Your task to perform on an android device: change notifications settings Image 0: 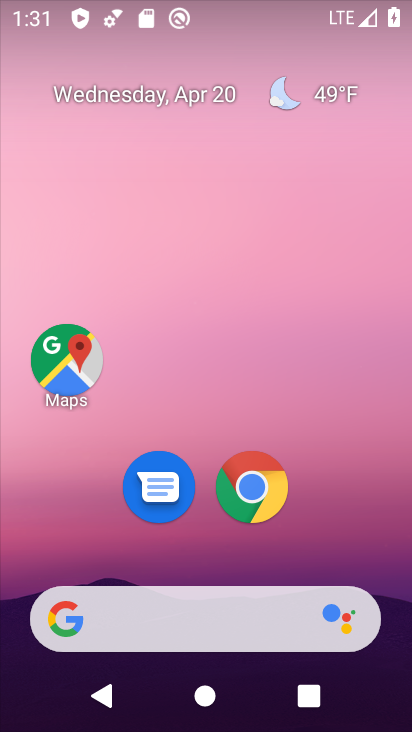
Step 0: drag from (360, 539) to (305, 187)
Your task to perform on an android device: change notifications settings Image 1: 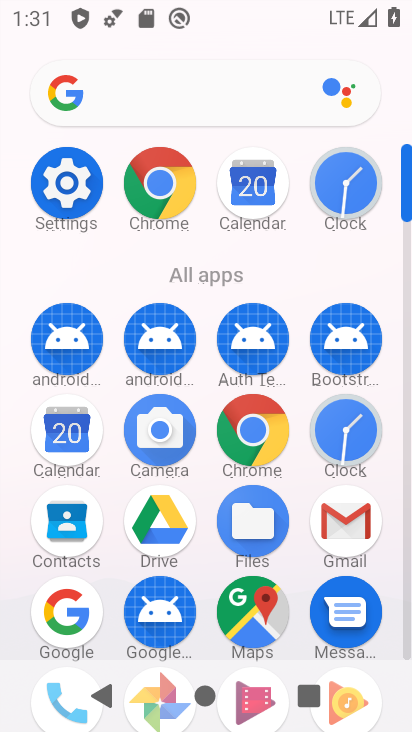
Step 1: click (74, 179)
Your task to perform on an android device: change notifications settings Image 2: 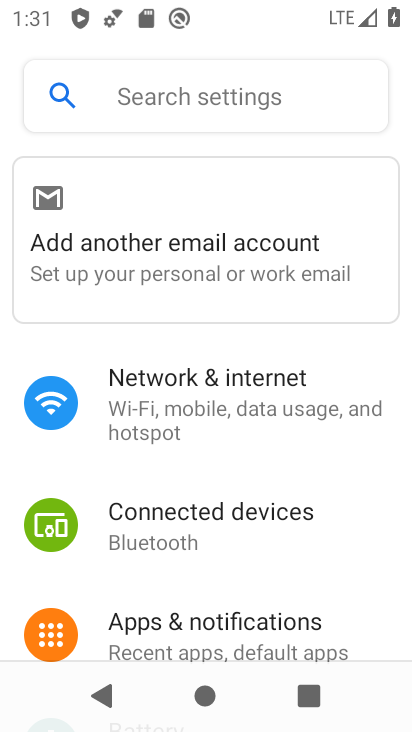
Step 2: drag from (241, 590) to (286, 338)
Your task to perform on an android device: change notifications settings Image 3: 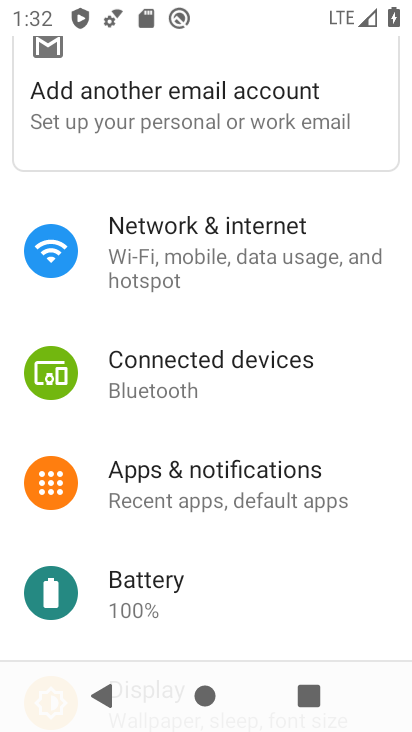
Step 3: click (286, 473)
Your task to perform on an android device: change notifications settings Image 4: 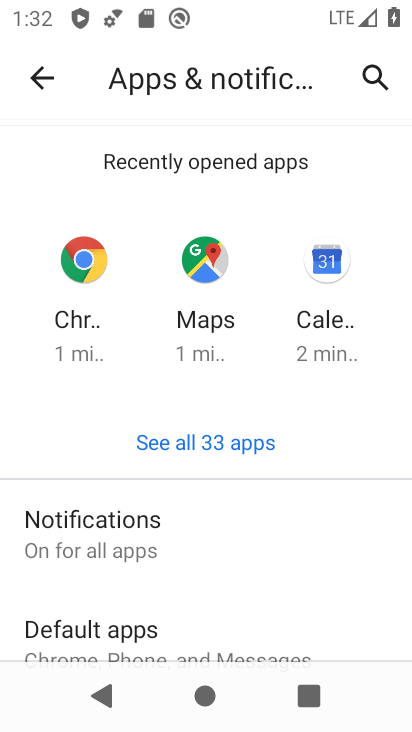
Step 4: click (268, 520)
Your task to perform on an android device: change notifications settings Image 5: 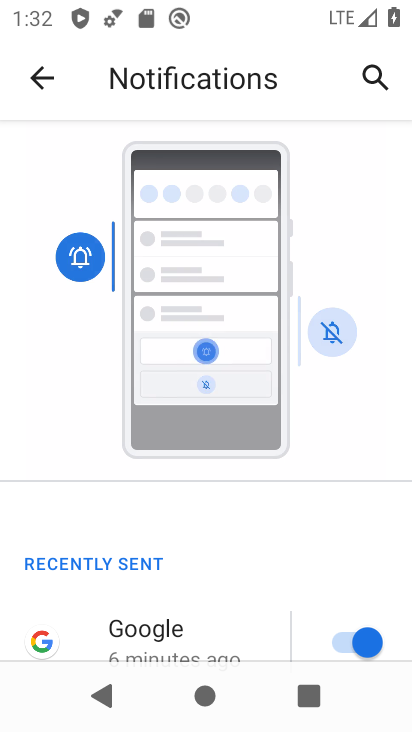
Step 5: drag from (262, 620) to (242, 291)
Your task to perform on an android device: change notifications settings Image 6: 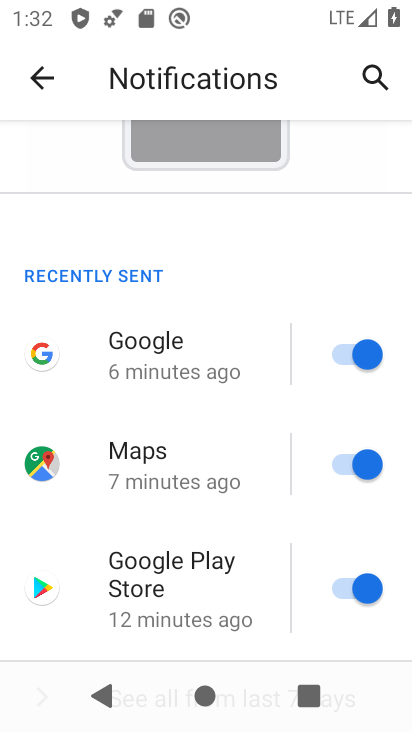
Step 6: drag from (235, 594) to (221, 310)
Your task to perform on an android device: change notifications settings Image 7: 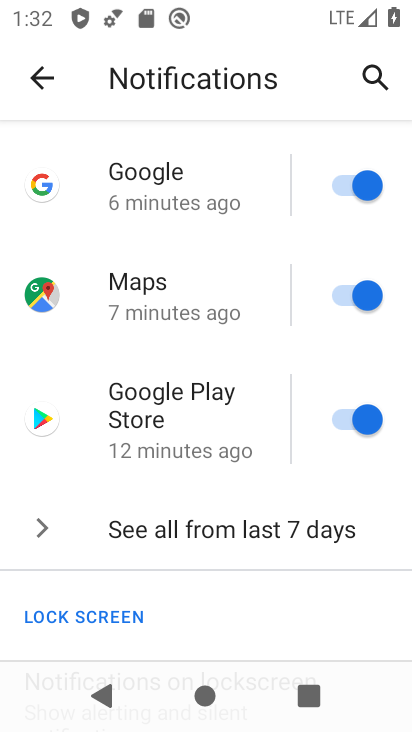
Step 7: drag from (234, 478) to (229, 242)
Your task to perform on an android device: change notifications settings Image 8: 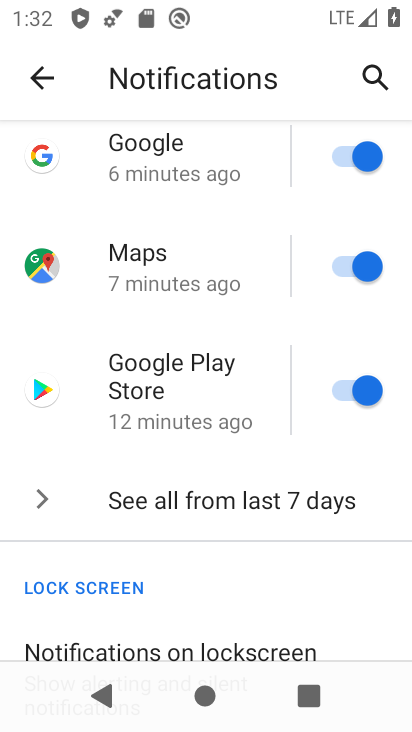
Step 8: drag from (225, 593) to (241, 213)
Your task to perform on an android device: change notifications settings Image 9: 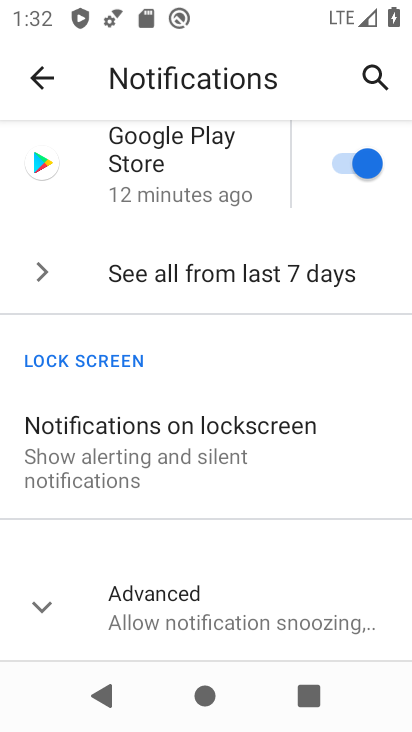
Step 9: click (232, 605)
Your task to perform on an android device: change notifications settings Image 10: 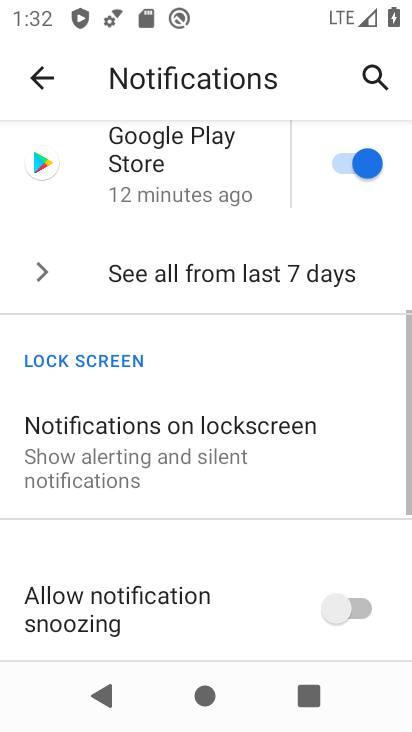
Step 10: drag from (232, 605) to (216, 320)
Your task to perform on an android device: change notifications settings Image 11: 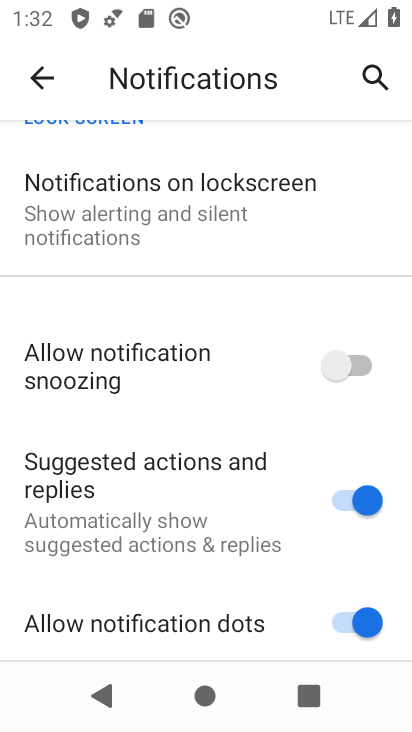
Step 11: click (352, 365)
Your task to perform on an android device: change notifications settings Image 12: 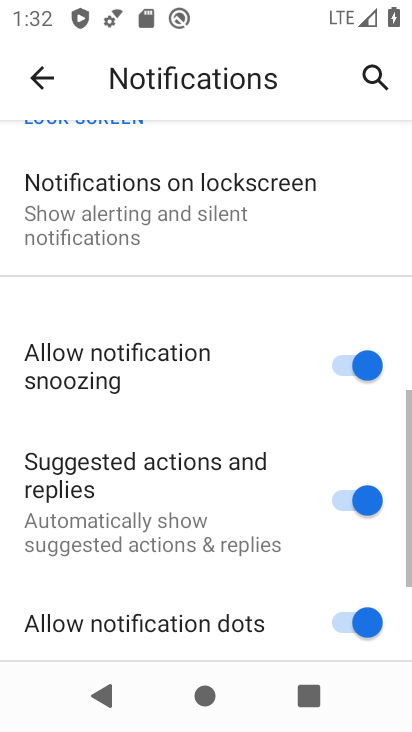
Step 12: click (350, 500)
Your task to perform on an android device: change notifications settings Image 13: 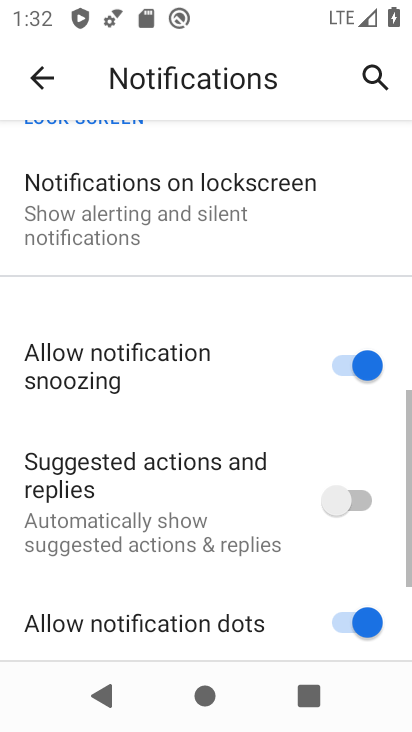
Step 13: click (346, 623)
Your task to perform on an android device: change notifications settings Image 14: 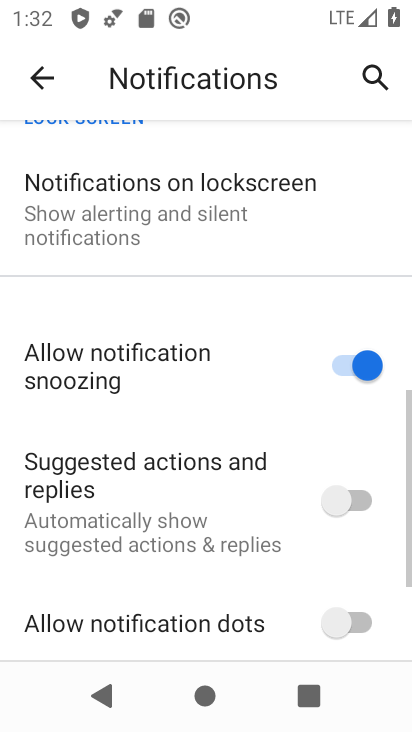
Step 14: task complete